Your task to perform on an android device: delete a single message in the gmail app Image 0: 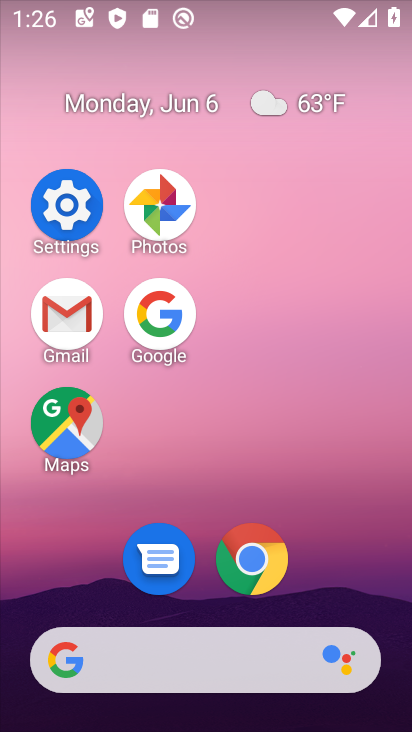
Step 0: click (92, 310)
Your task to perform on an android device: delete a single message in the gmail app Image 1: 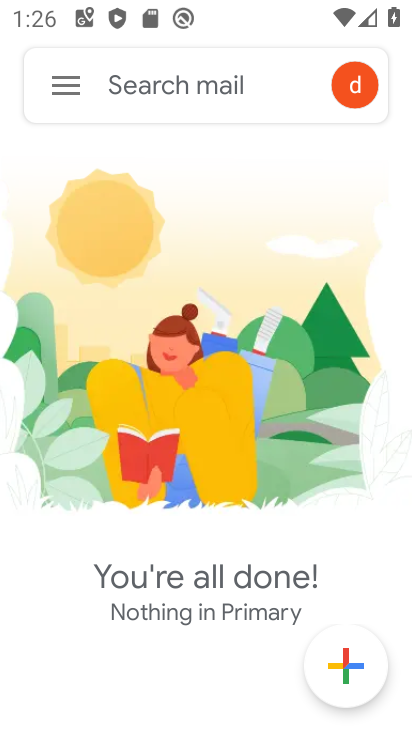
Step 1: click (50, 54)
Your task to perform on an android device: delete a single message in the gmail app Image 2: 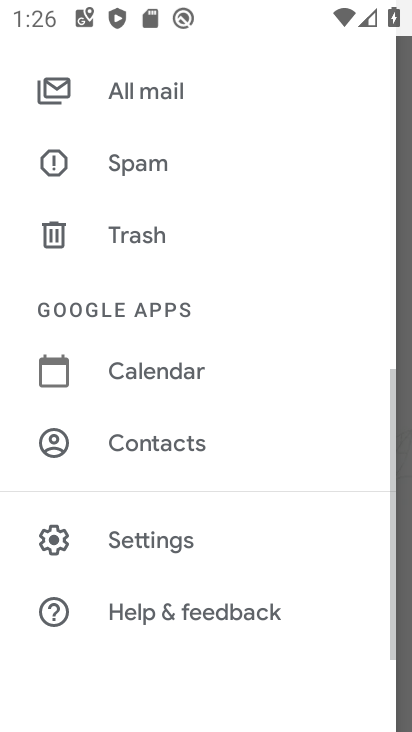
Step 2: click (177, 100)
Your task to perform on an android device: delete a single message in the gmail app Image 3: 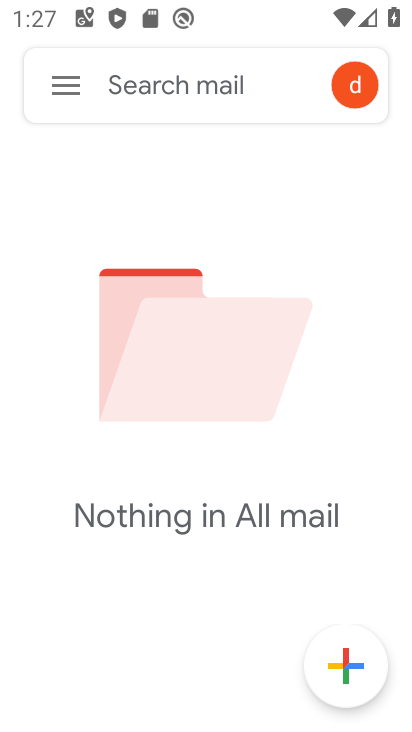
Step 3: task complete